Your task to perform on an android device: turn off airplane mode Image 0: 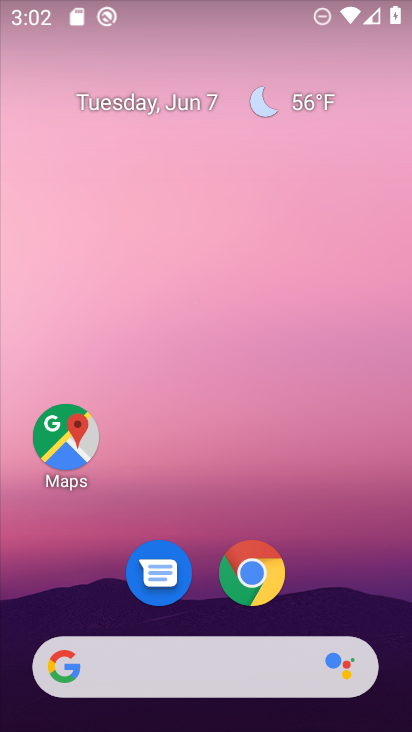
Step 0: drag from (351, 593) to (232, 38)
Your task to perform on an android device: turn off airplane mode Image 1: 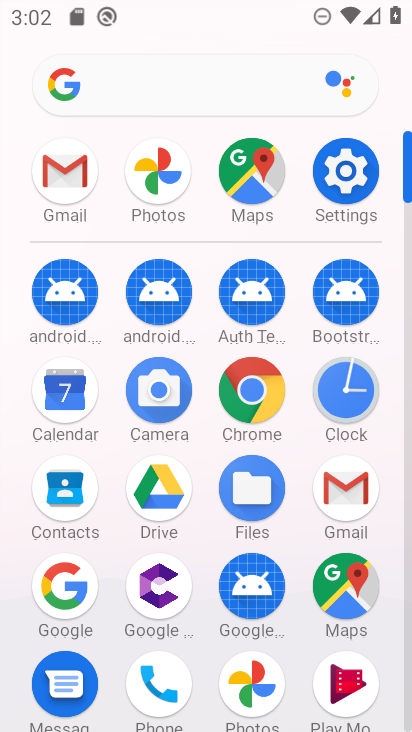
Step 1: click (341, 168)
Your task to perform on an android device: turn off airplane mode Image 2: 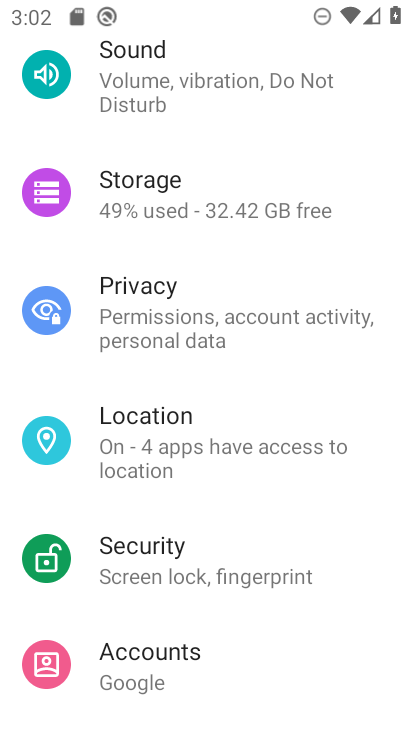
Step 2: drag from (226, 180) to (256, 729)
Your task to perform on an android device: turn off airplane mode Image 3: 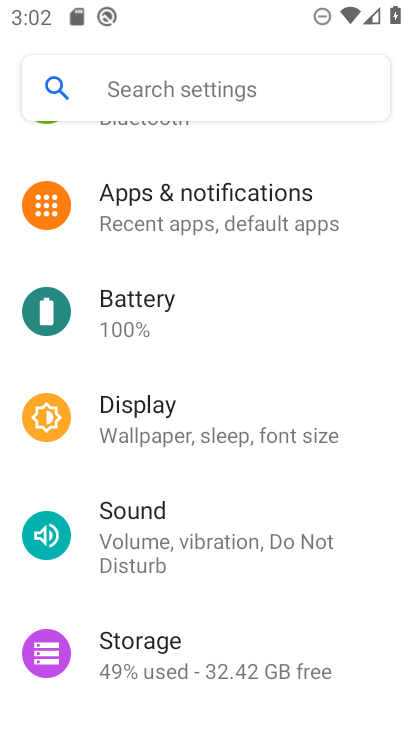
Step 3: drag from (170, 250) to (267, 727)
Your task to perform on an android device: turn off airplane mode Image 4: 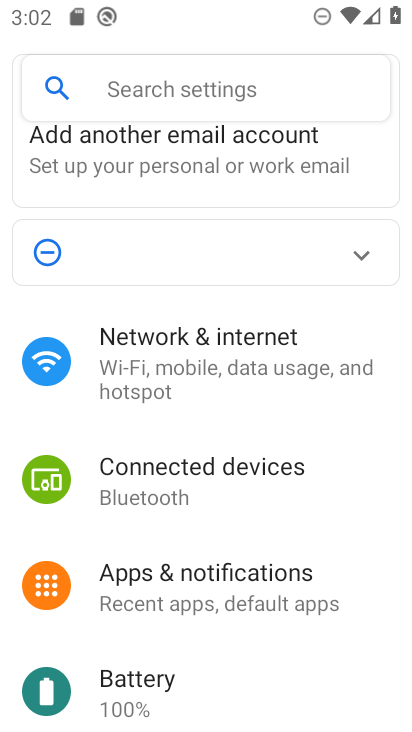
Step 4: click (190, 338)
Your task to perform on an android device: turn off airplane mode Image 5: 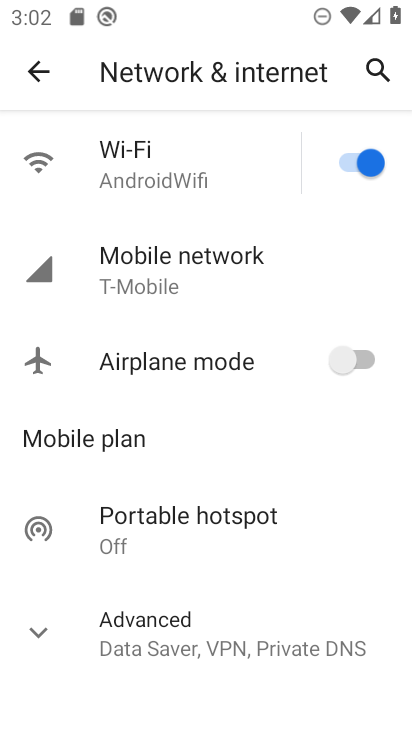
Step 5: task complete